Your task to perform on an android device: toggle data saver in the chrome app Image 0: 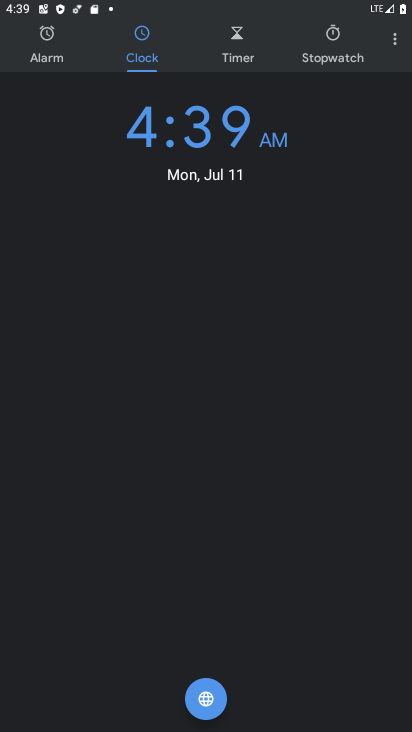
Step 0: press home button
Your task to perform on an android device: toggle data saver in the chrome app Image 1: 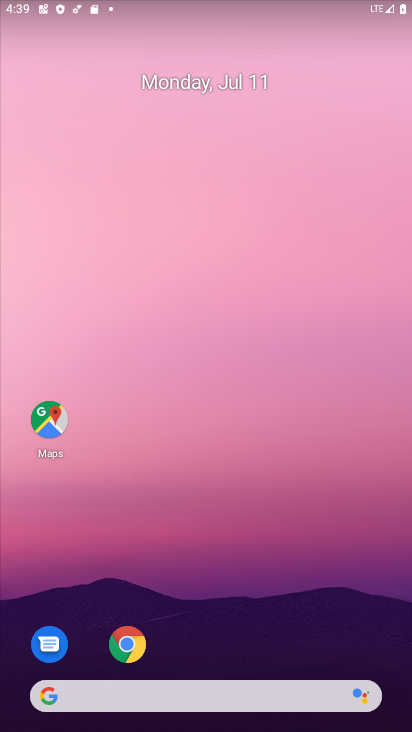
Step 1: drag from (262, 637) to (177, 29)
Your task to perform on an android device: toggle data saver in the chrome app Image 2: 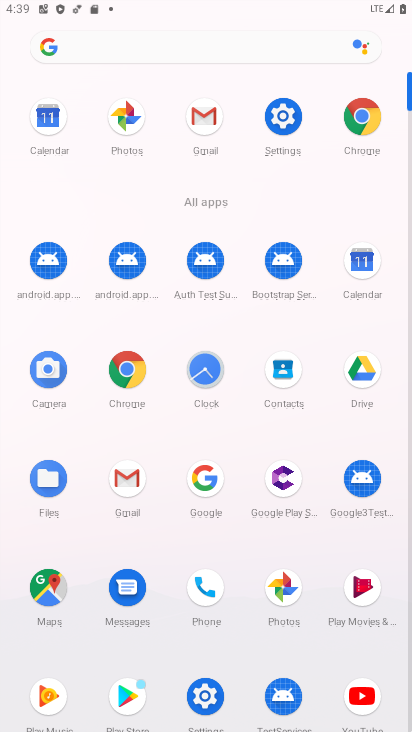
Step 2: click (368, 122)
Your task to perform on an android device: toggle data saver in the chrome app Image 3: 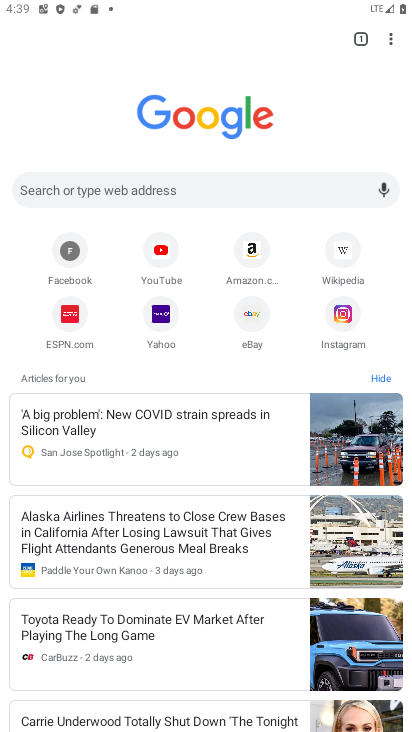
Step 3: click (390, 42)
Your task to perform on an android device: toggle data saver in the chrome app Image 4: 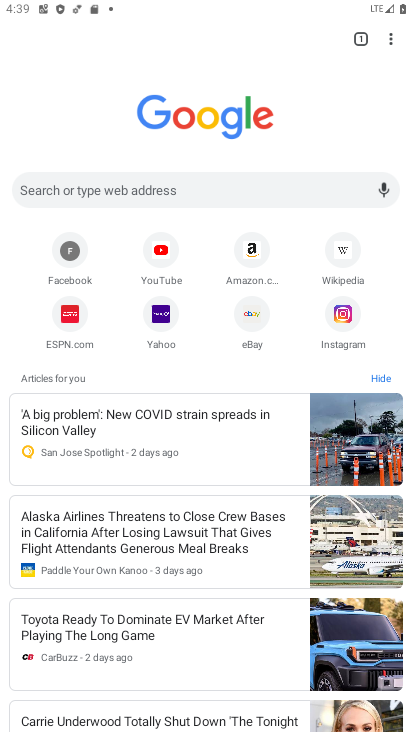
Step 4: click (392, 41)
Your task to perform on an android device: toggle data saver in the chrome app Image 5: 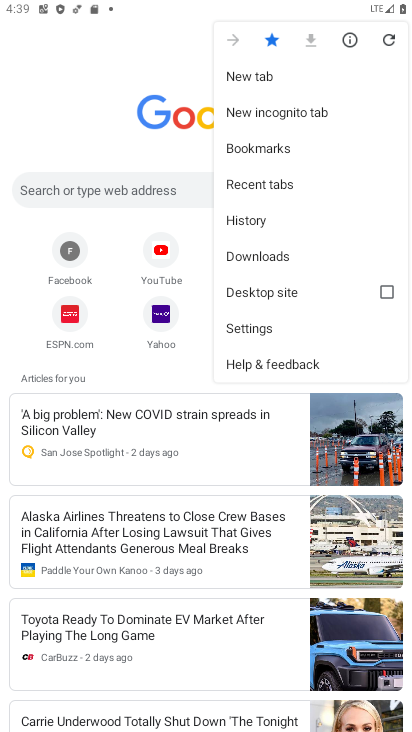
Step 5: click (267, 326)
Your task to perform on an android device: toggle data saver in the chrome app Image 6: 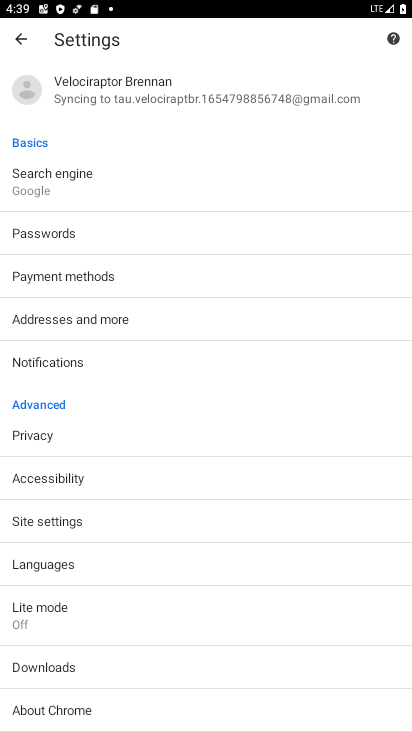
Step 6: click (174, 631)
Your task to perform on an android device: toggle data saver in the chrome app Image 7: 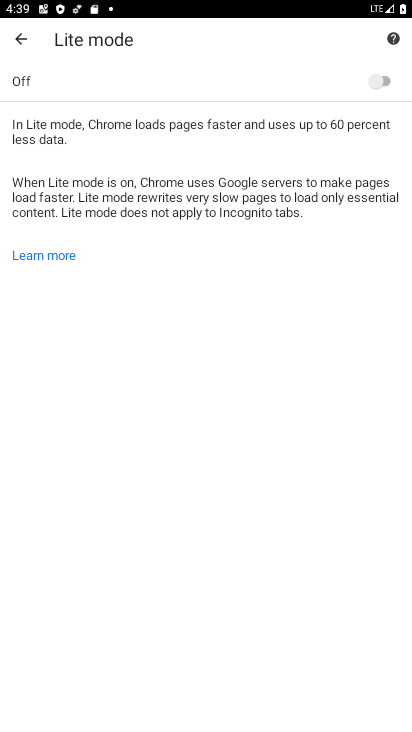
Step 7: click (380, 76)
Your task to perform on an android device: toggle data saver in the chrome app Image 8: 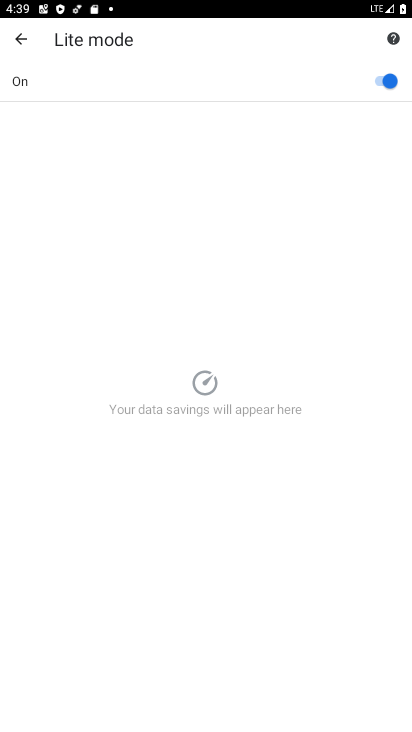
Step 8: task complete